Your task to perform on an android device: turn off sleep mode Image 0: 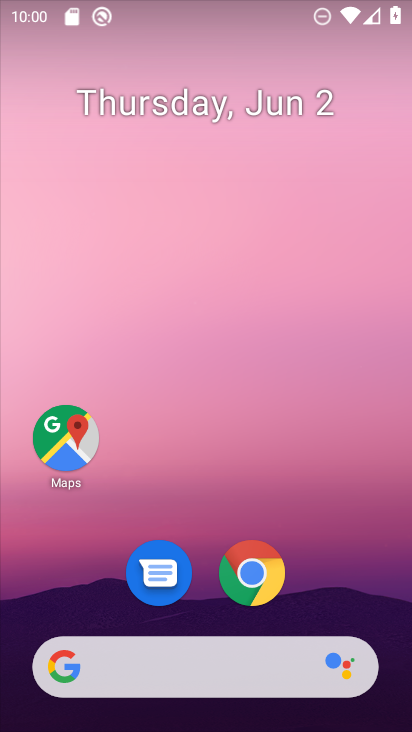
Step 0: drag from (310, 264) to (284, 106)
Your task to perform on an android device: turn off sleep mode Image 1: 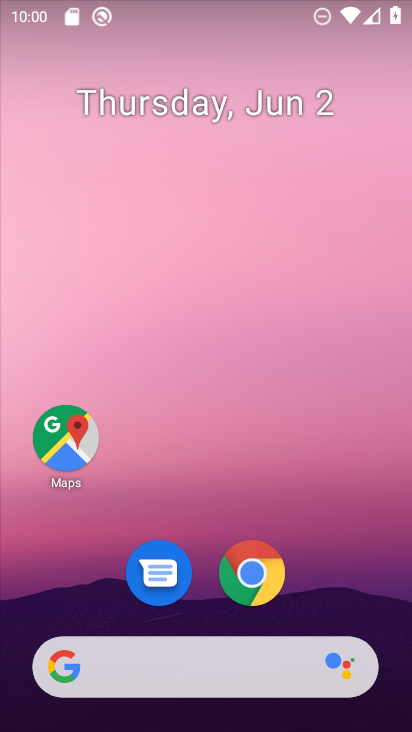
Step 1: drag from (344, 497) to (278, 99)
Your task to perform on an android device: turn off sleep mode Image 2: 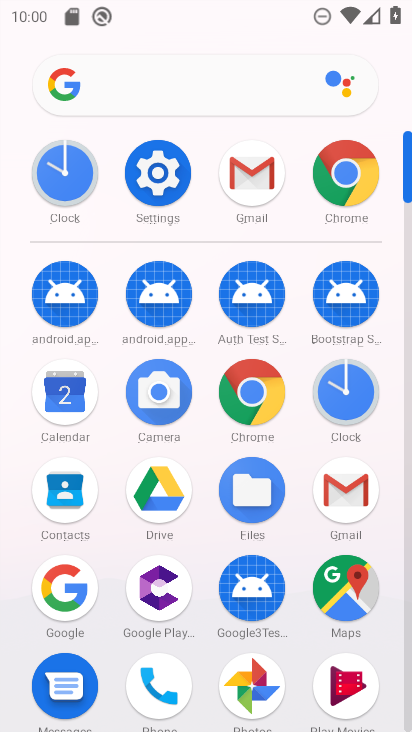
Step 2: click (160, 173)
Your task to perform on an android device: turn off sleep mode Image 3: 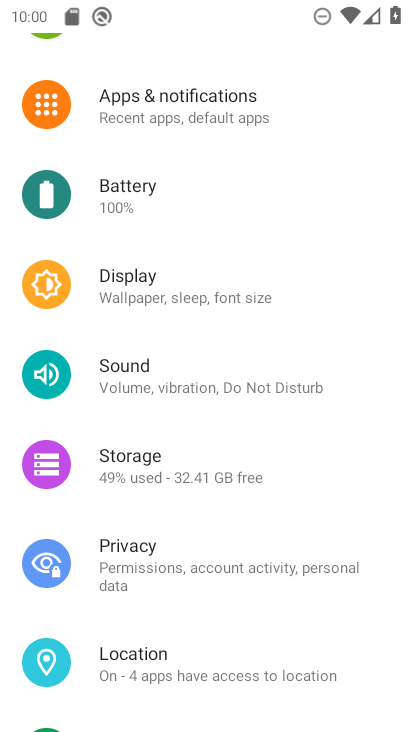
Step 3: click (160, 173)
Your task to perform on an android device: turn off sleep mode Image 4: 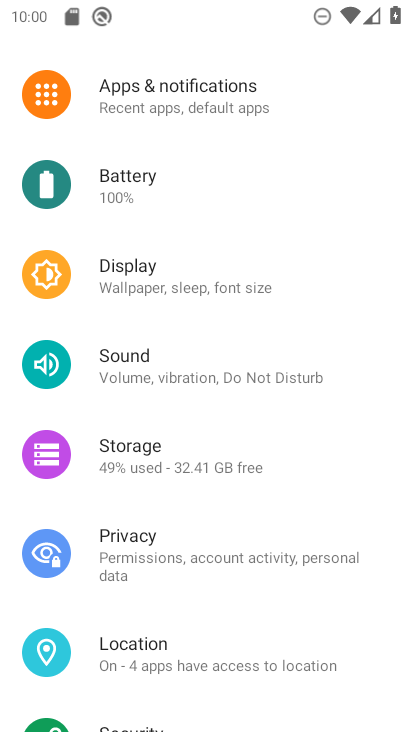
Step 4: click (218, 286)
Your task to perform on an android device: turn off sleep mode Image 5: 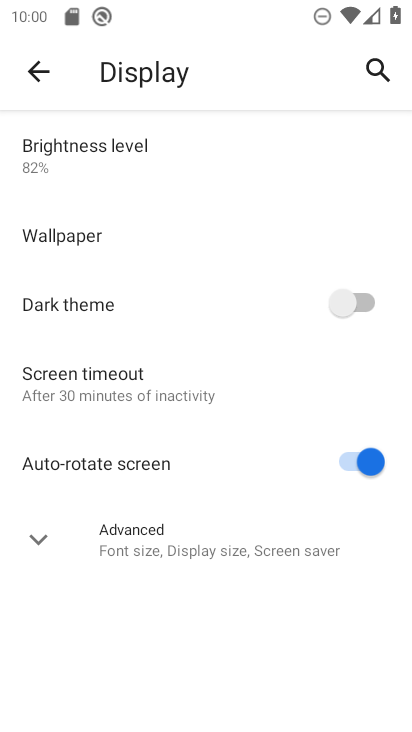
Step 5: click (111, 376)
Your task to perform on an android device: turn off sleep mode Image 6: 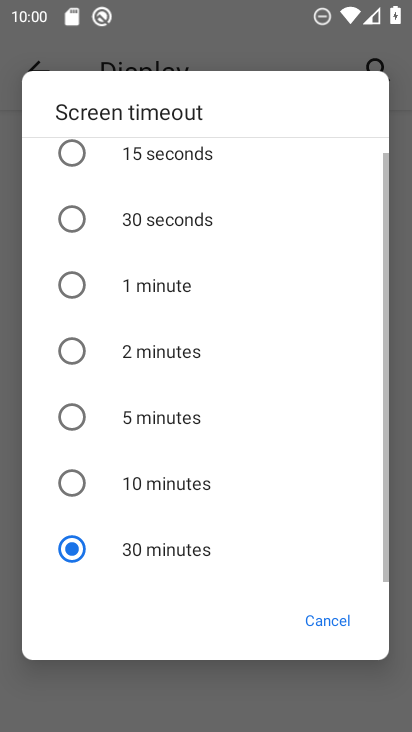
Step 6: task complete